Your task to perform on an android device: Clear the cart on ebay.com. Image 0: 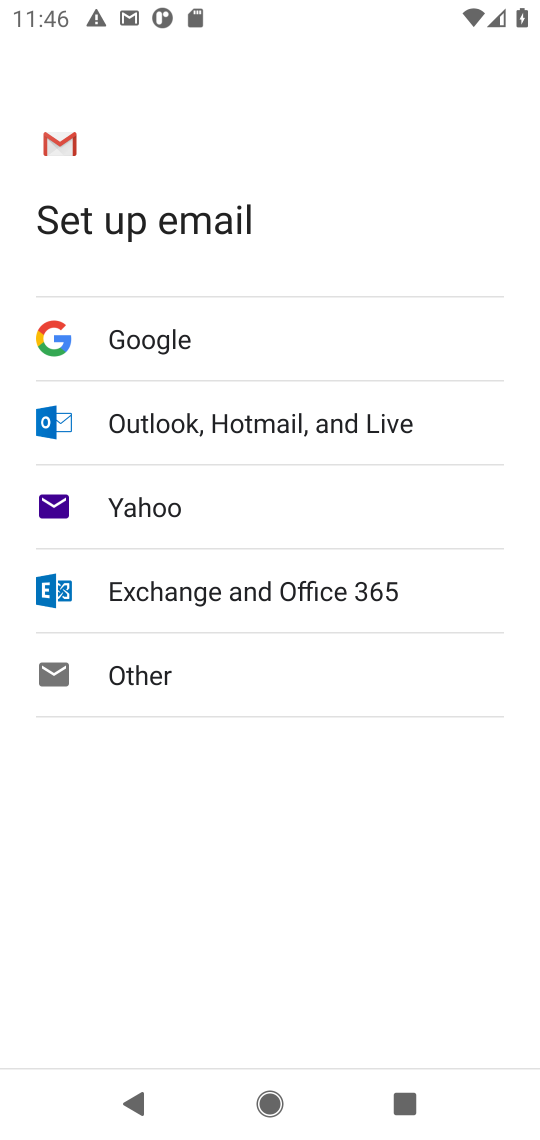
Step 0: press home button
Your task to perform on an android device: Clear the cart on ebay.com. Image 1: 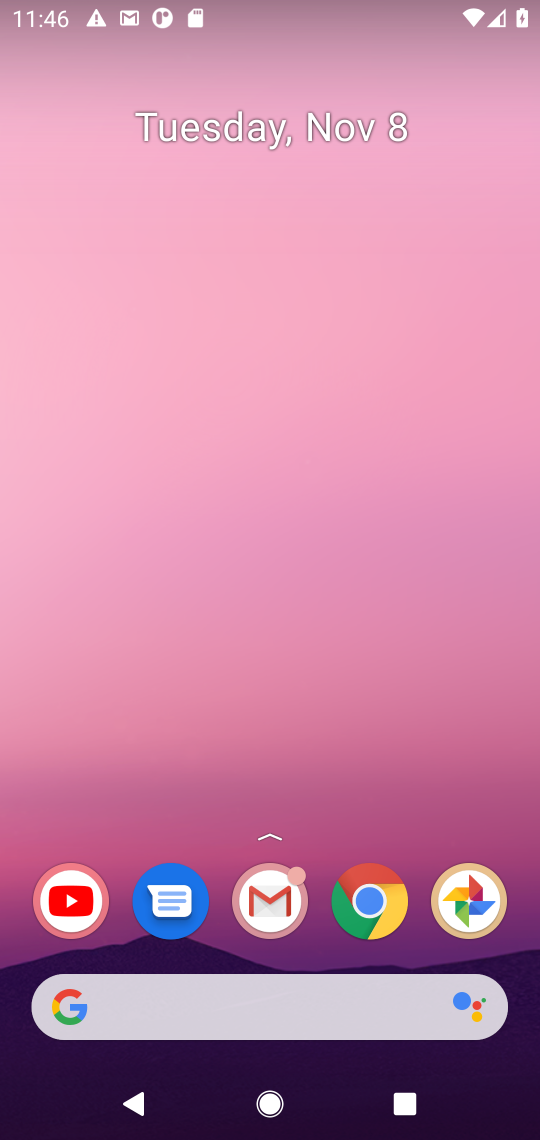
Step 1: click (362, 873)
Your task to perform on an android device: Clear the cart on ebay.com. Image 2: 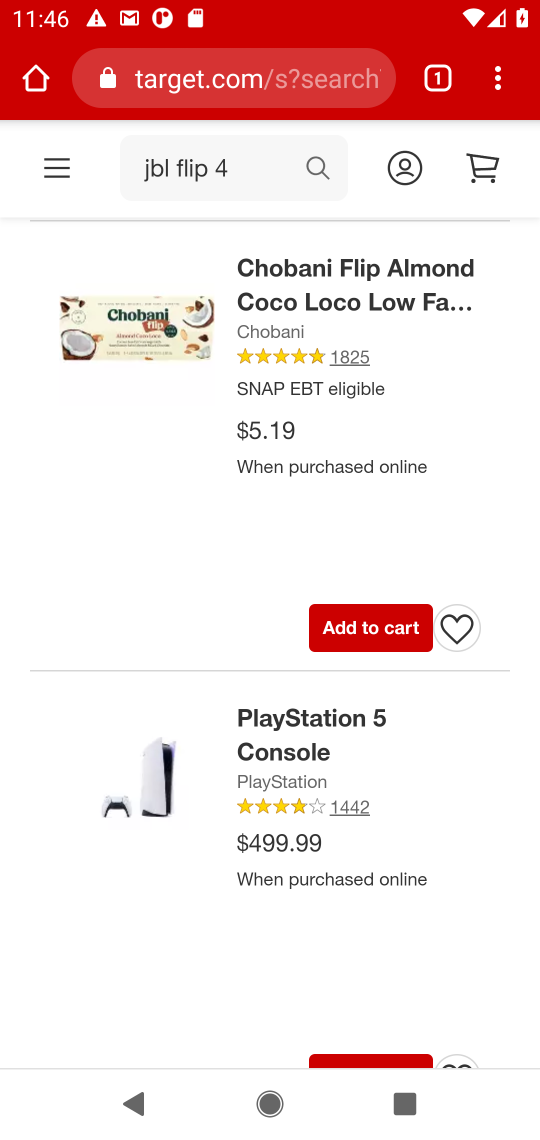
Step 2: click (234, 81)
Your task to perform on an android device: Clear the cart on ebay.com. Image 3: 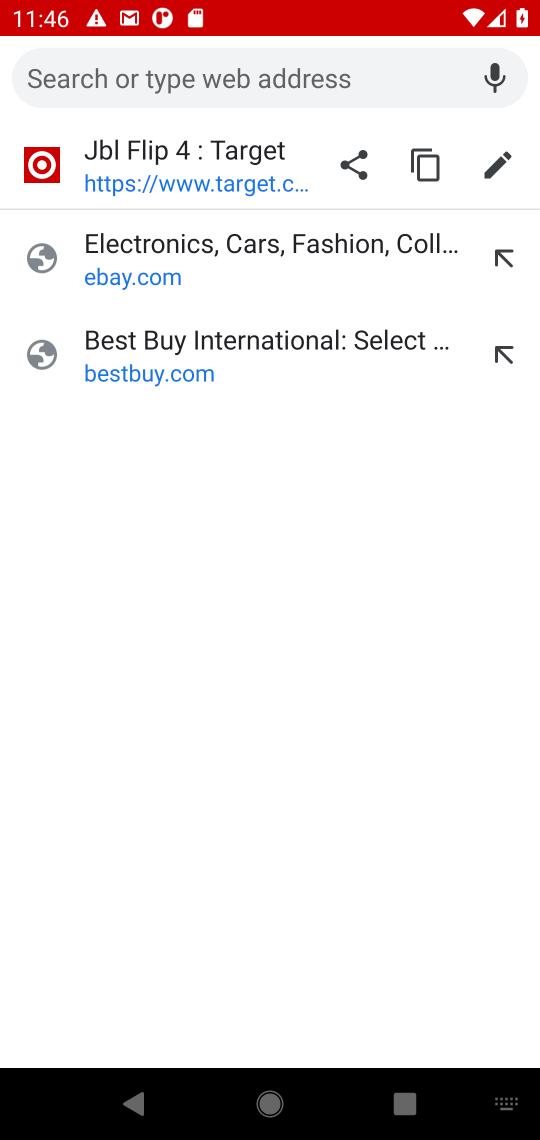
Step 3: type "ebay.com"
Your task to perform on an android device: Clear the cart on ebay.com. Image 4: 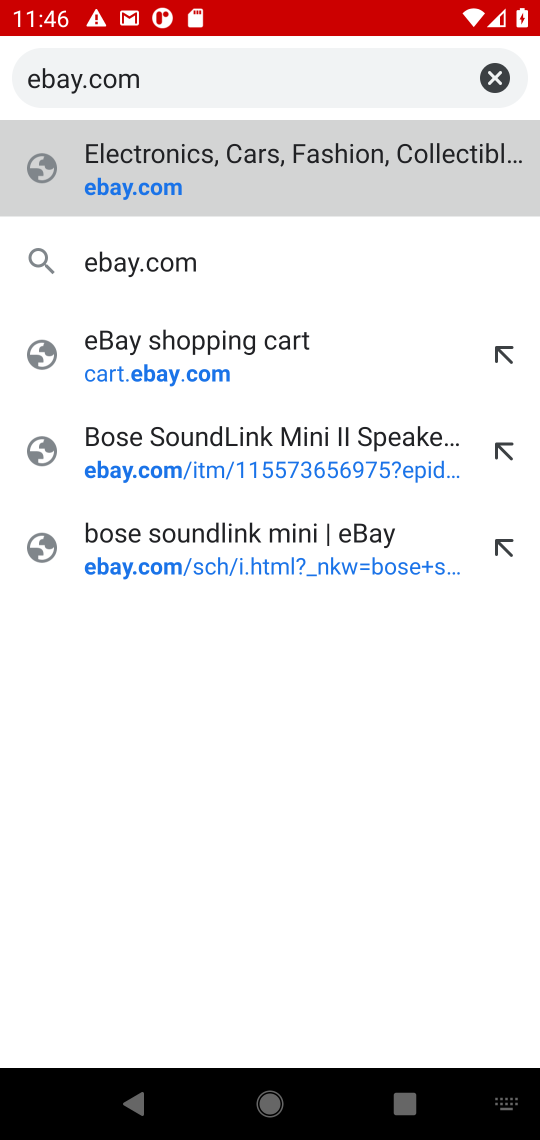
Step 4: press enter
Your task to perform on an android device: Clear the cart on ebay.com. Image 5: 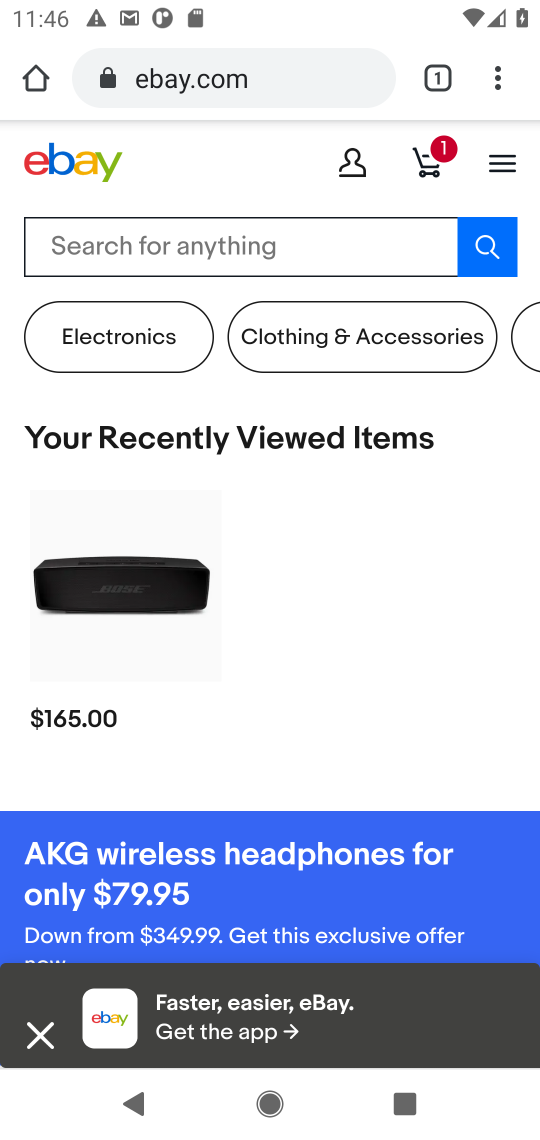
Step 5: click (435, 165)
Your task to perform on an android device: Clear the cart on ebay.com. Image 6: 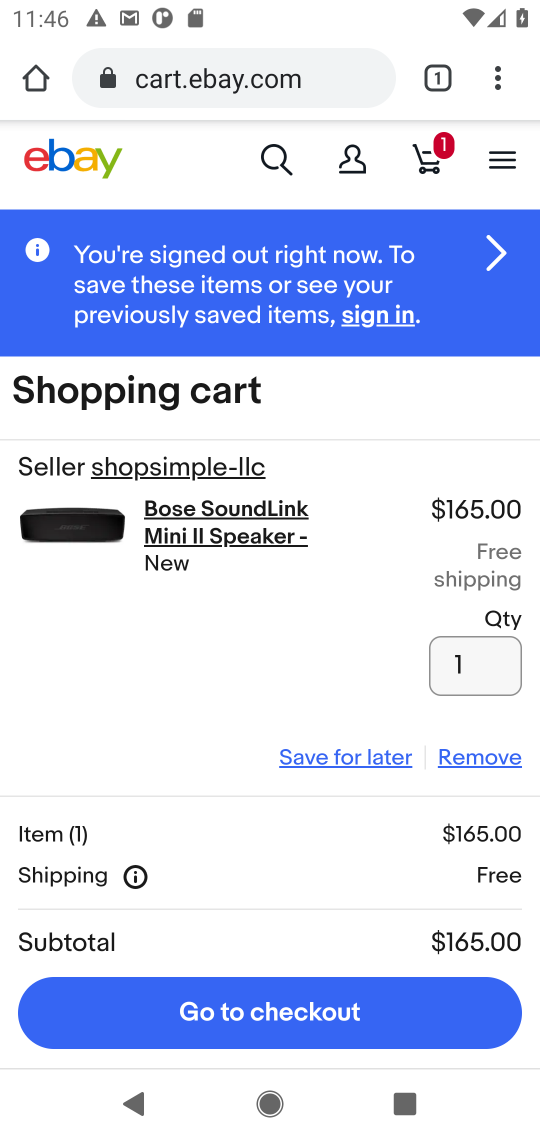
Step 6: drag from (261, 872) to (255, 676)
Your task to perform on an android device: Clear the cart on ebay.com. Image 7: 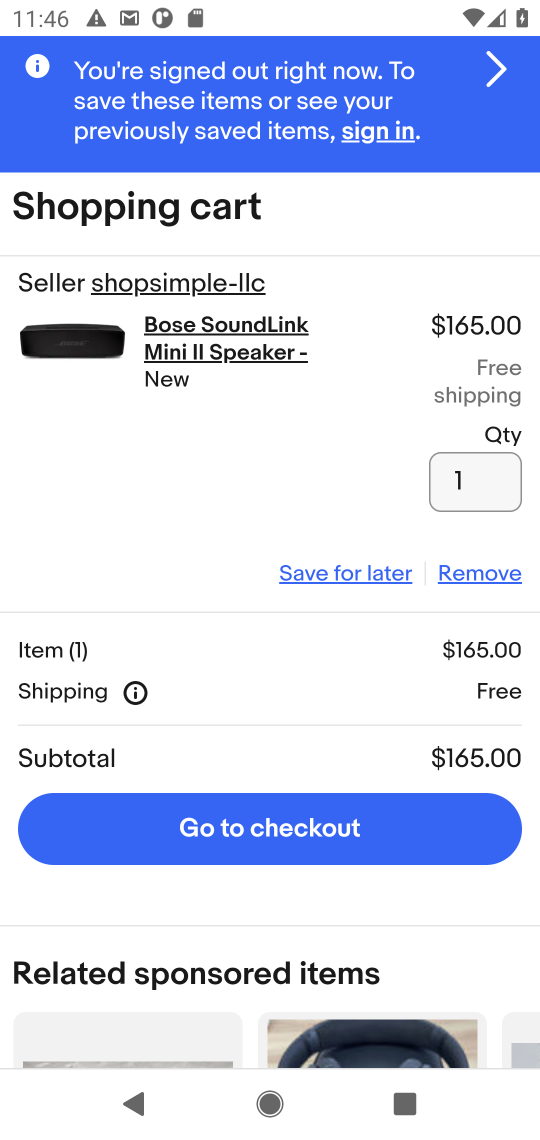
Step 7: click (474, 568)
Your task to perform on an android device: Clear the cart on ebay.com. Image 8: 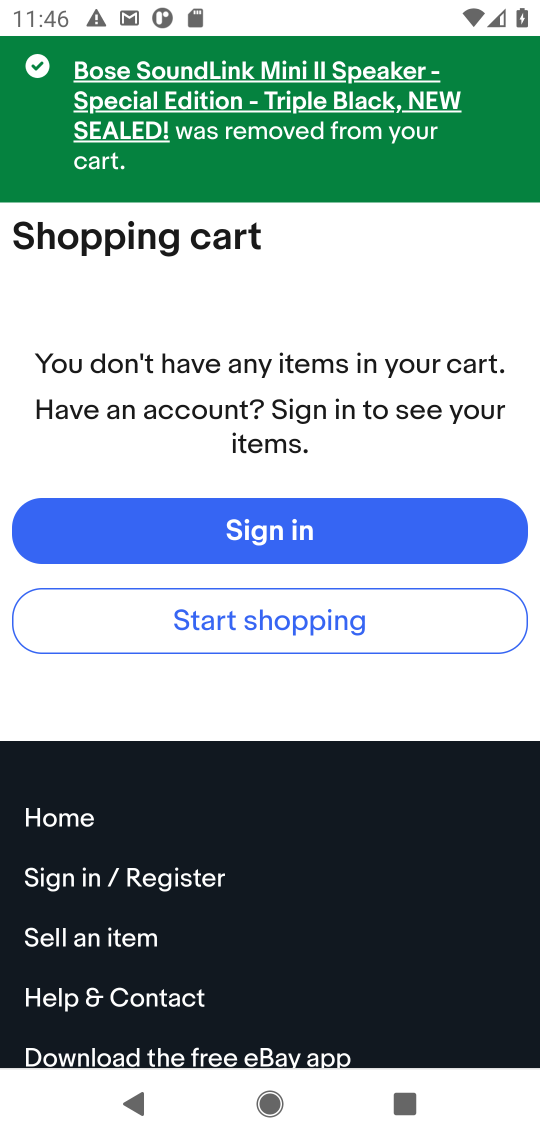
Step 8: task complete